Your task to perform on an android device: Open Google Chrome and open the bookmarks view Image 0: 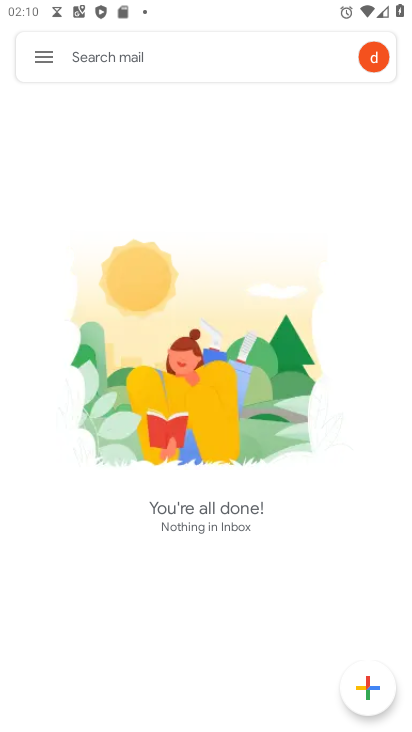
Step 0: press home button
Your task to perform on an android device: Open Google Chrome and open the bookmarks view Image 1: 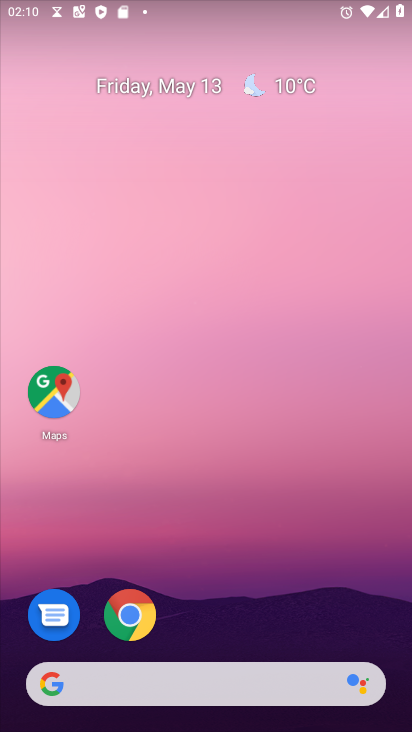
Step 1: click (140, 620)
Your task to perform on an android device: Open Google Chrome and open the bookmarks view Image 2: 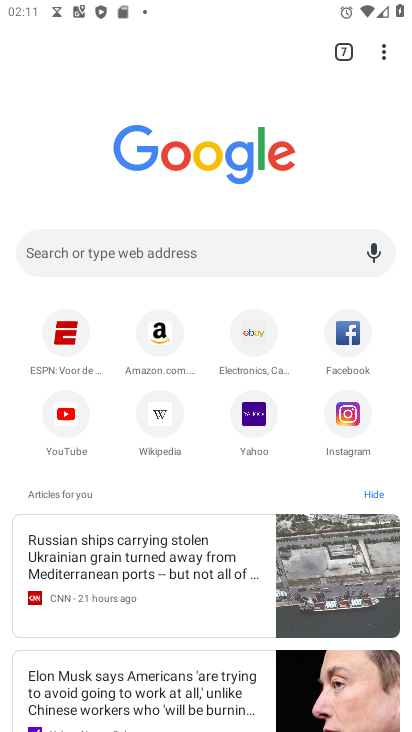
Step 2: click (383, 50)
Your task to perform on an android device: Open Google Chrome and open the bookmarks view Image 3: 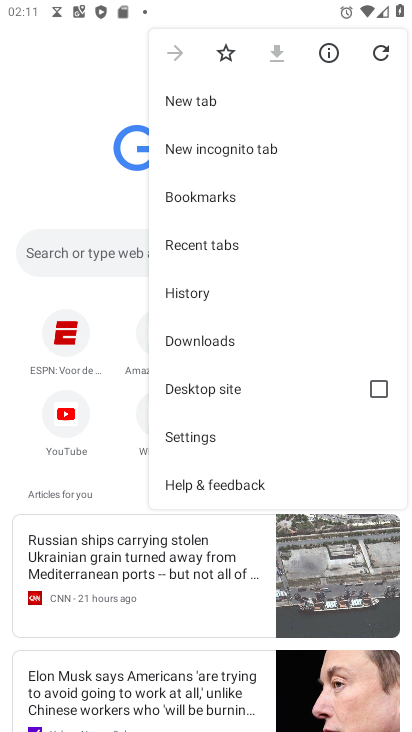
Step 3: click (207, 202)
Your task to perform on an android device: Open Google Chrome and open the bookmarks view Image 4: 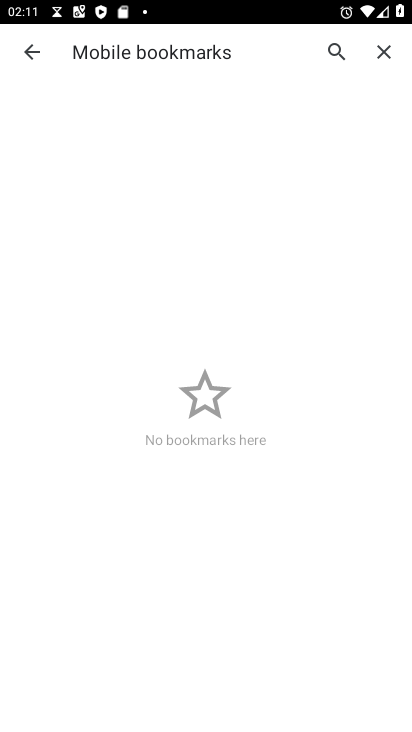
Step 4: task complete